Your task to perform on an android device: Go to settings Image 0: 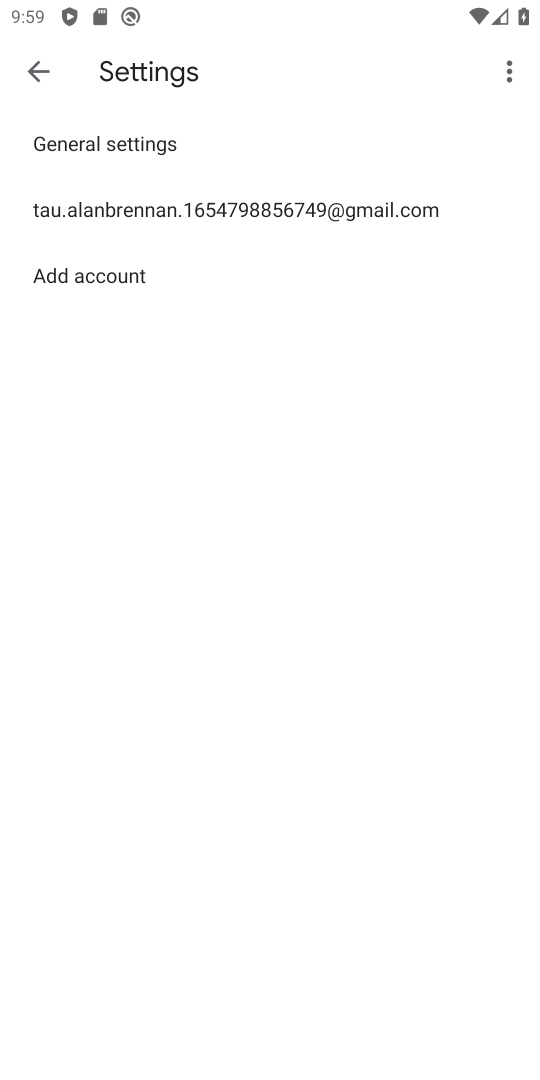
Step 0: press home button
Your task to perform on an android device: Go to settings Image 1: 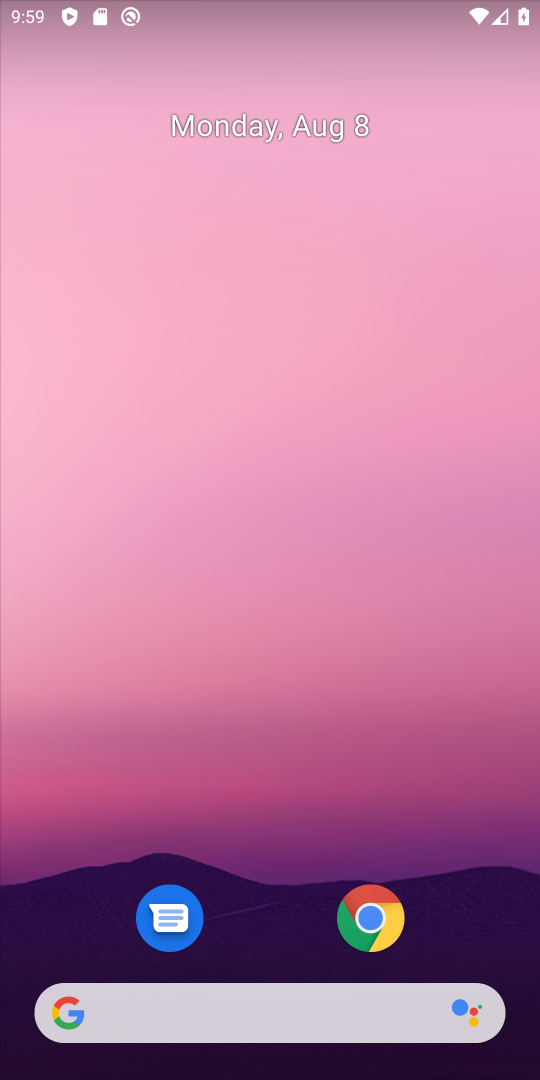
Step 1: drag from (293, 972) to (269, 144)
Your task to perform on an android device: Go to settings Image 2: 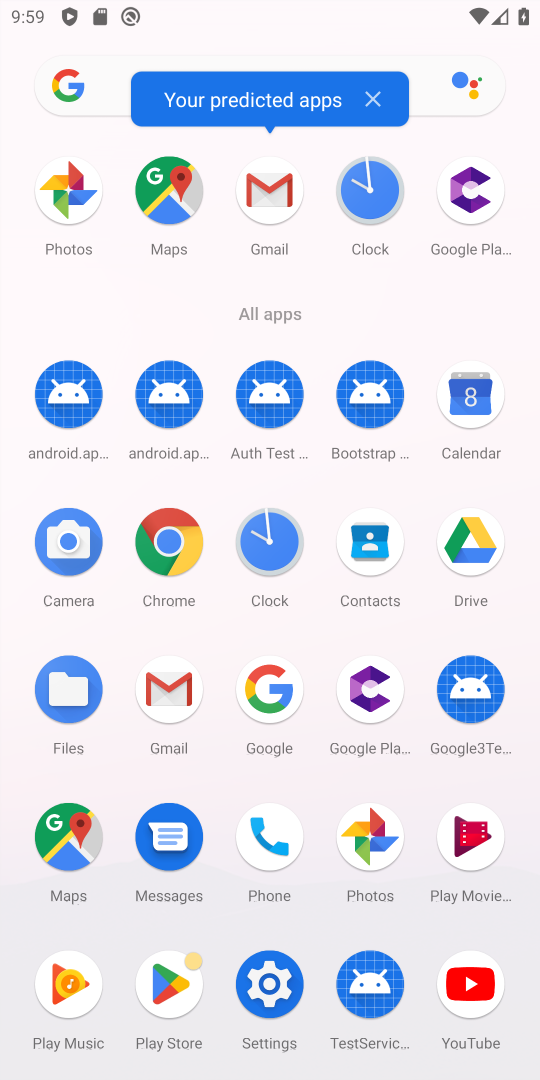
Step 2: click (282, 1015)
Your task to perform on an android device: Go to settings Image 3: 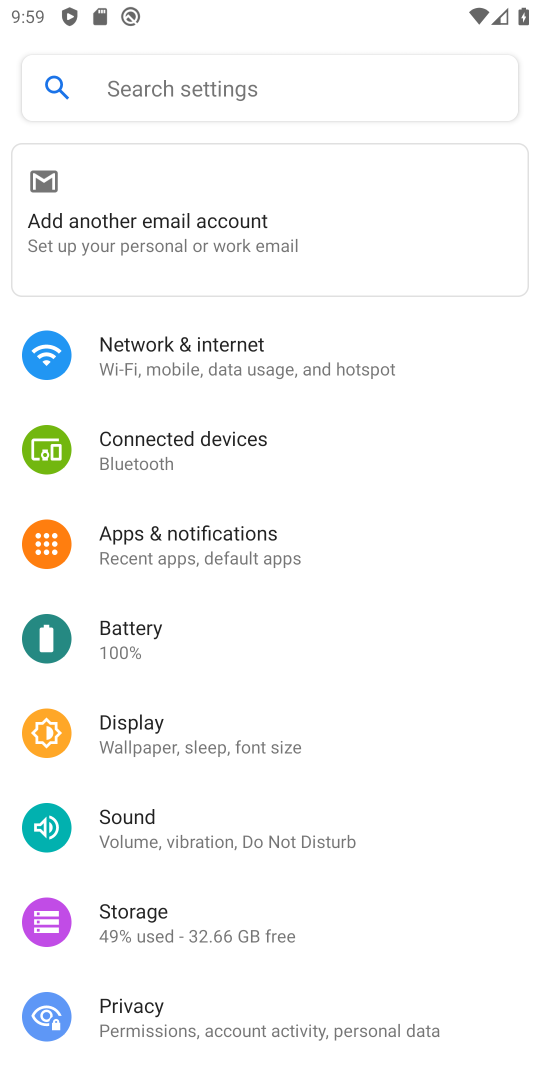
Step 3: task complete